Your task to perform on an android device: Open the phone app and click the voicemail tab. Image 0: 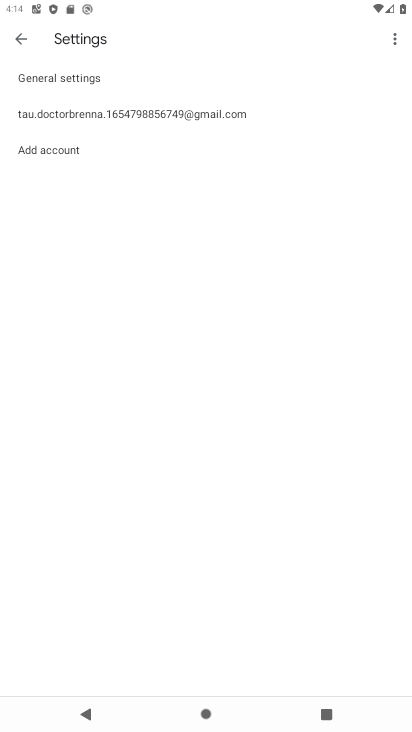
Step 0: press home button
Your task to perform on an android device: Open the phone app and click the voicemail tab. Image 1: 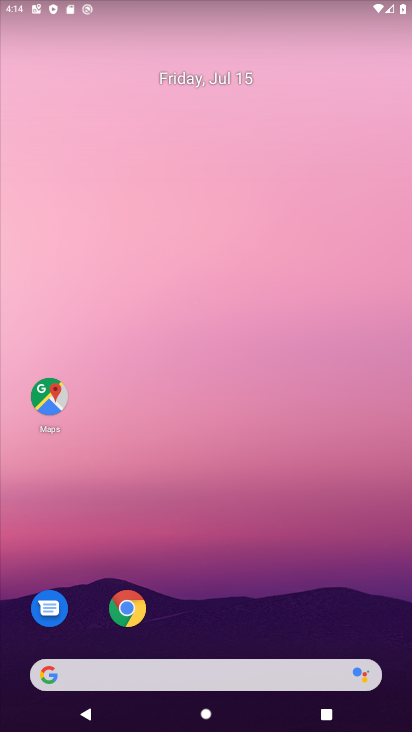
Step 1: drag from (232, 629) to (294, 6)
Your task to perform on an android device: Open the phone app and click the voicemail tab. Image 2: 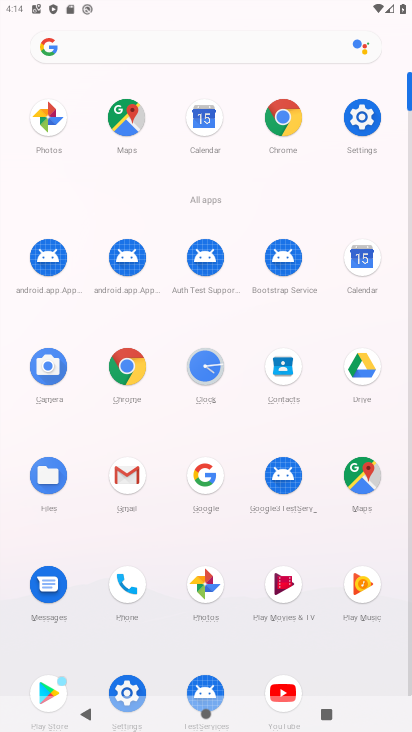
Step 2: click (125, 599)
Your task to perform on an android device: Open the phone app and click the voicemail tab. Image 3: 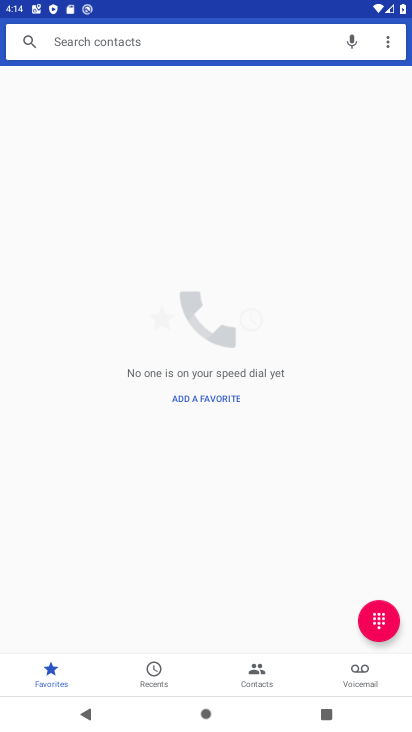
Step 3: click (354, 668)
Your task to perform on an android device: Open the phone app and click the voicemail tab. Image 4: 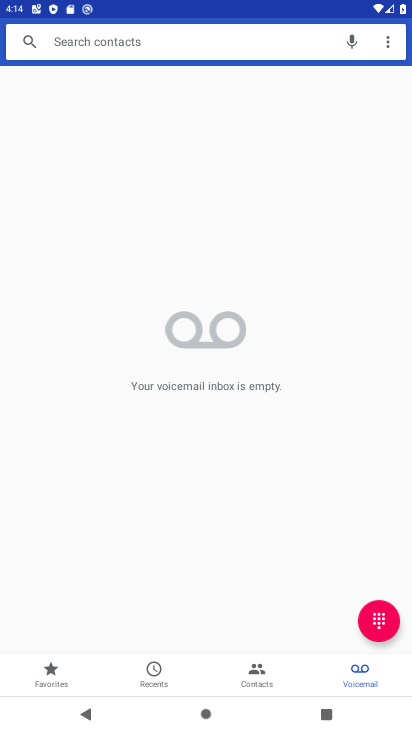
Step 4: task complete